Your task to perform on an android device: toggle location history Image 0: 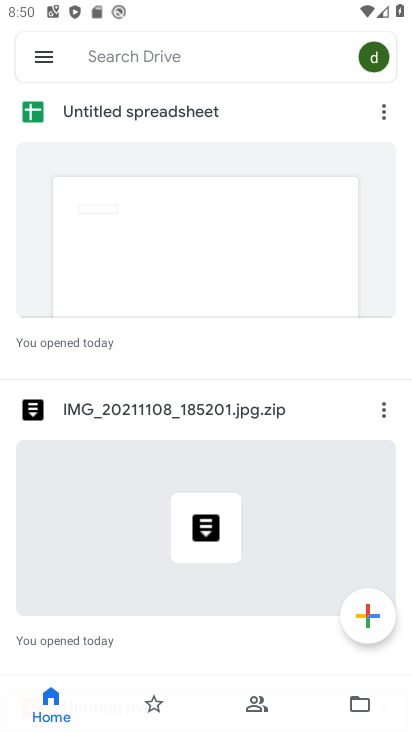
Step 0: press home button
Your task to perform on an android device: toggle location history Image 1: 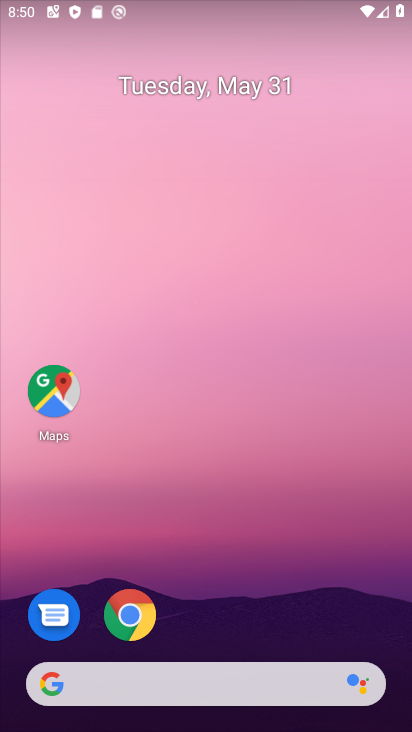
Step 1: click (56, 392)
Your task to perform on an android device: toggle location history Image 2: 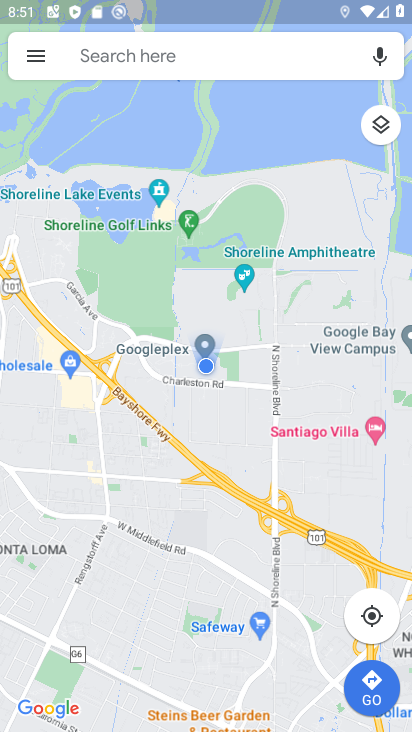
Step 2: click (40, 62)
Your task to perform on an android device: toggle location history Image 3: 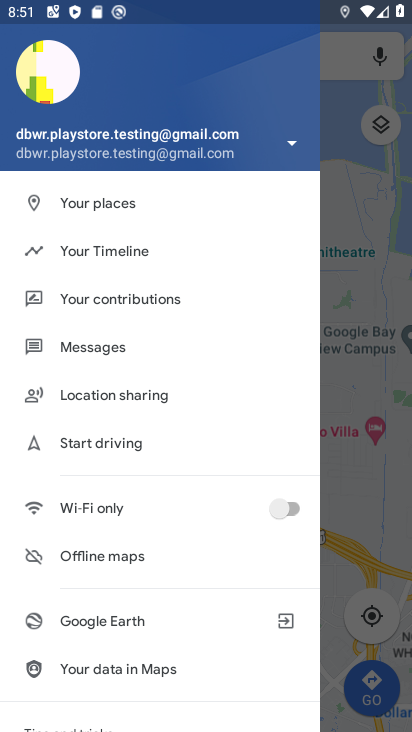
Step 3: drag from (177, 580) to (196, 382)
Your task to perform on an android device: toggle location history Image 4: 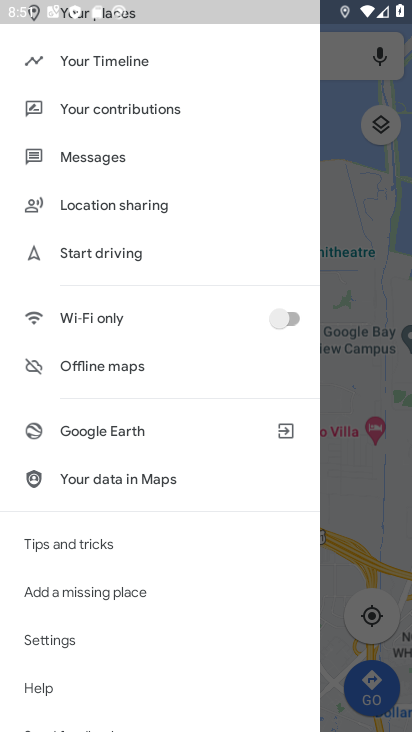
Step 4: click (55, 642)
Your task to perform on an android device: toggle location history Image 5: 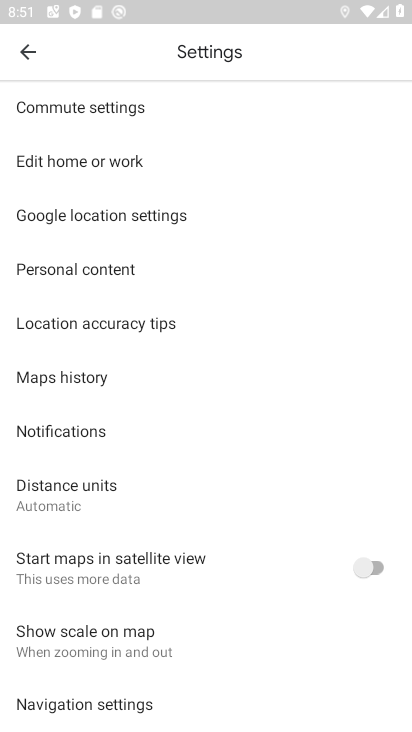
Step 5: click (74, 268)
Your task to perform on an android device: toggle location history Image 6: 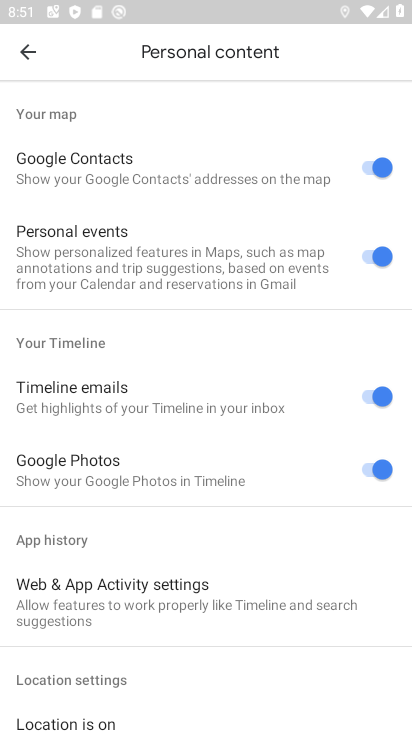
Step 6: drag from (196, 574) to (176, 180)
Your task to perform on an android device: toggle location history Image 7: 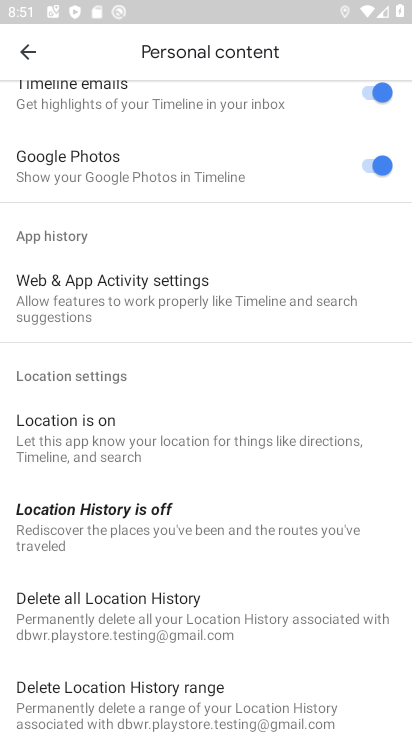
Step 7: click (109, 514)
Your task to perform on an android device: toggle location history Image 8: 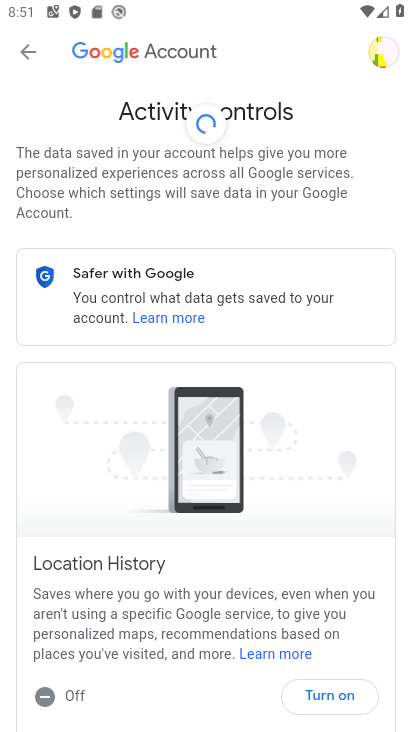
Step 8: drag from (332, 618) to (307, 335)
Your task to perform on an android device: toggle location history Image 9: 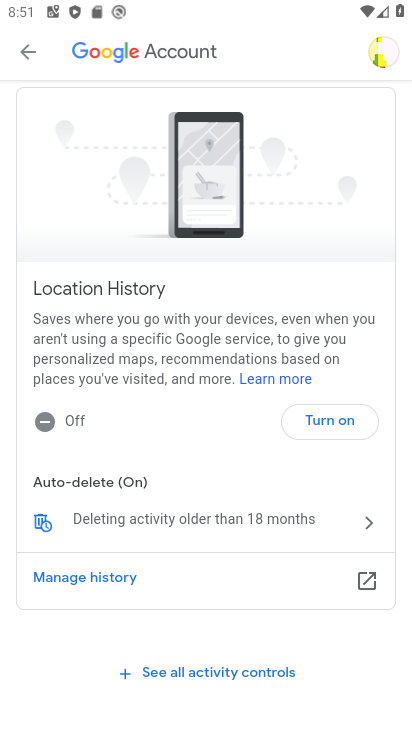
Step 9: click (331, 418)
Your task to perform on an android device: toggle location history Image 10: 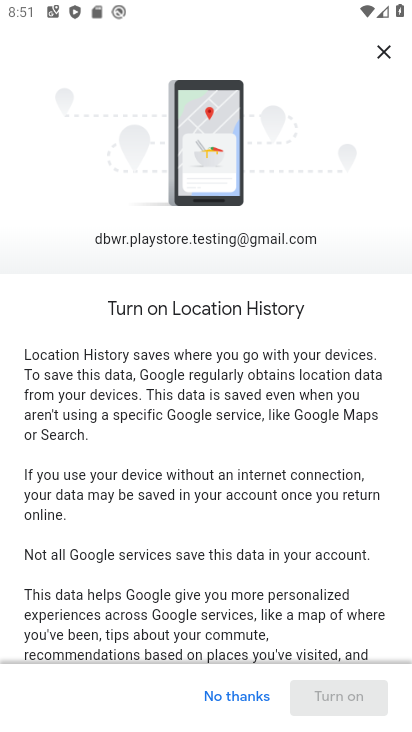
Step 10: drag from (297, 562) to (243, 107)
Your task to perform on an android device: toggle location history Image 11: 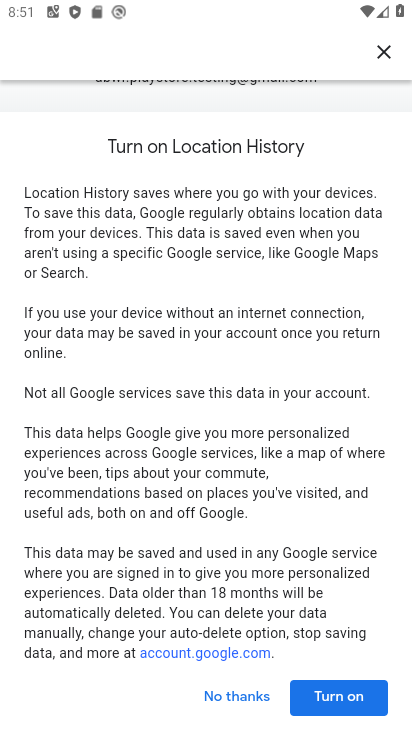
Step 11: click (336, 697)
Your task to perform on an android device: toggle location history Image 12: 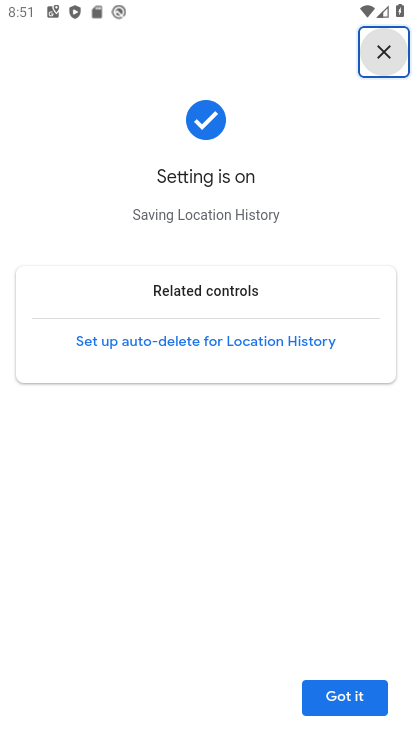
Step 12: click (340, 706)
Your task to perform on an android device: toggle location history Image 13: 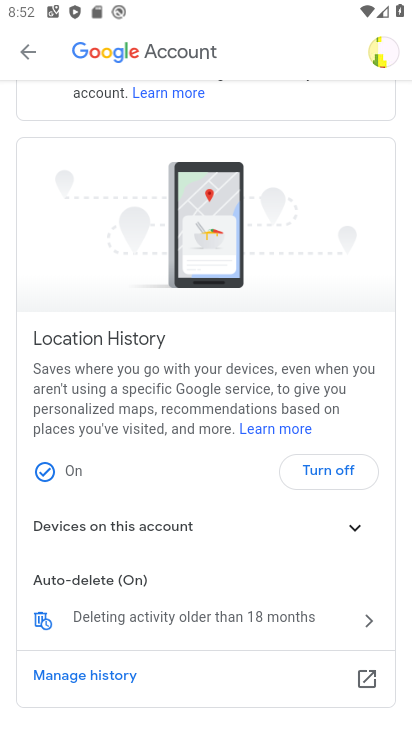
Step 13: task complete